Your task to perform on an android device: check data usage Image 0: 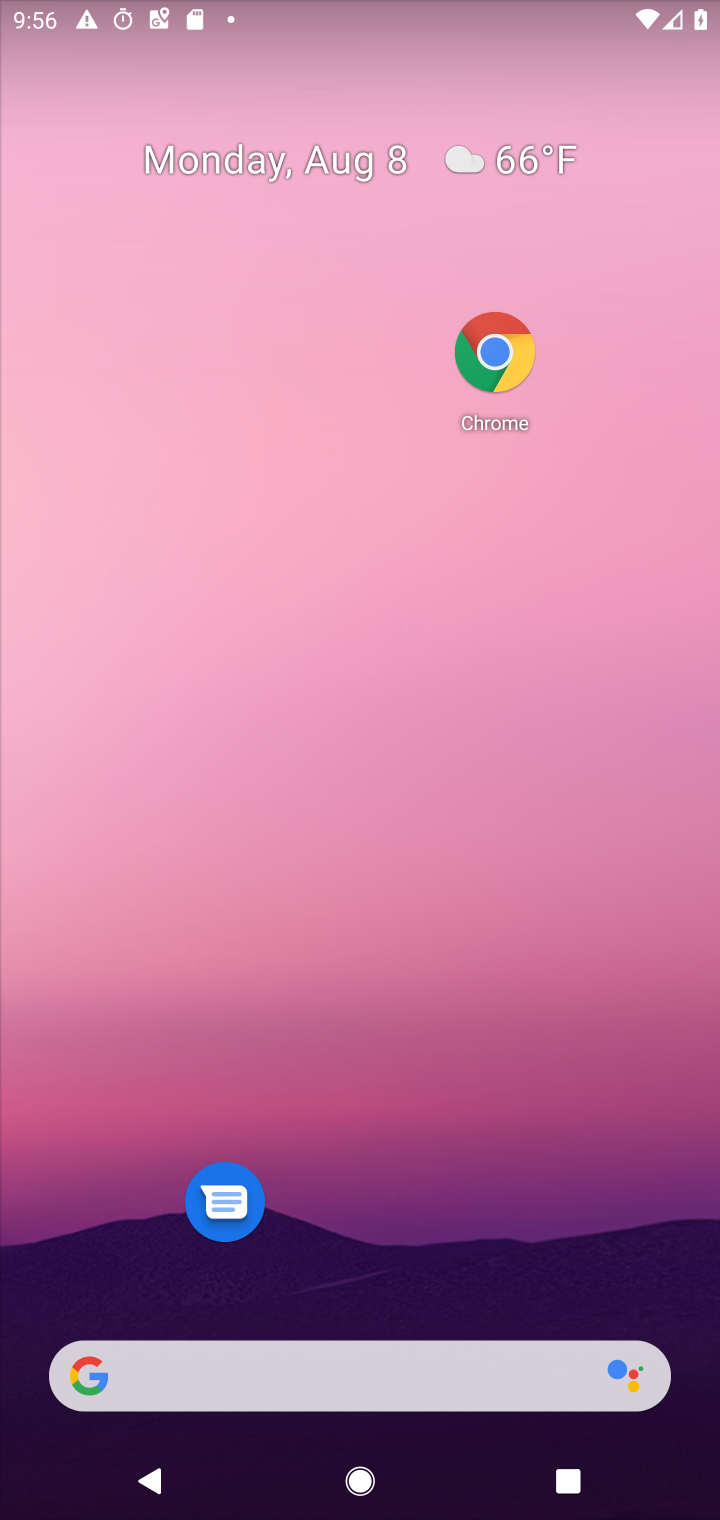
Step 0: drag from (432, 665) to (432, 104)
Your task to perform on an android device: check data usage Image 1: 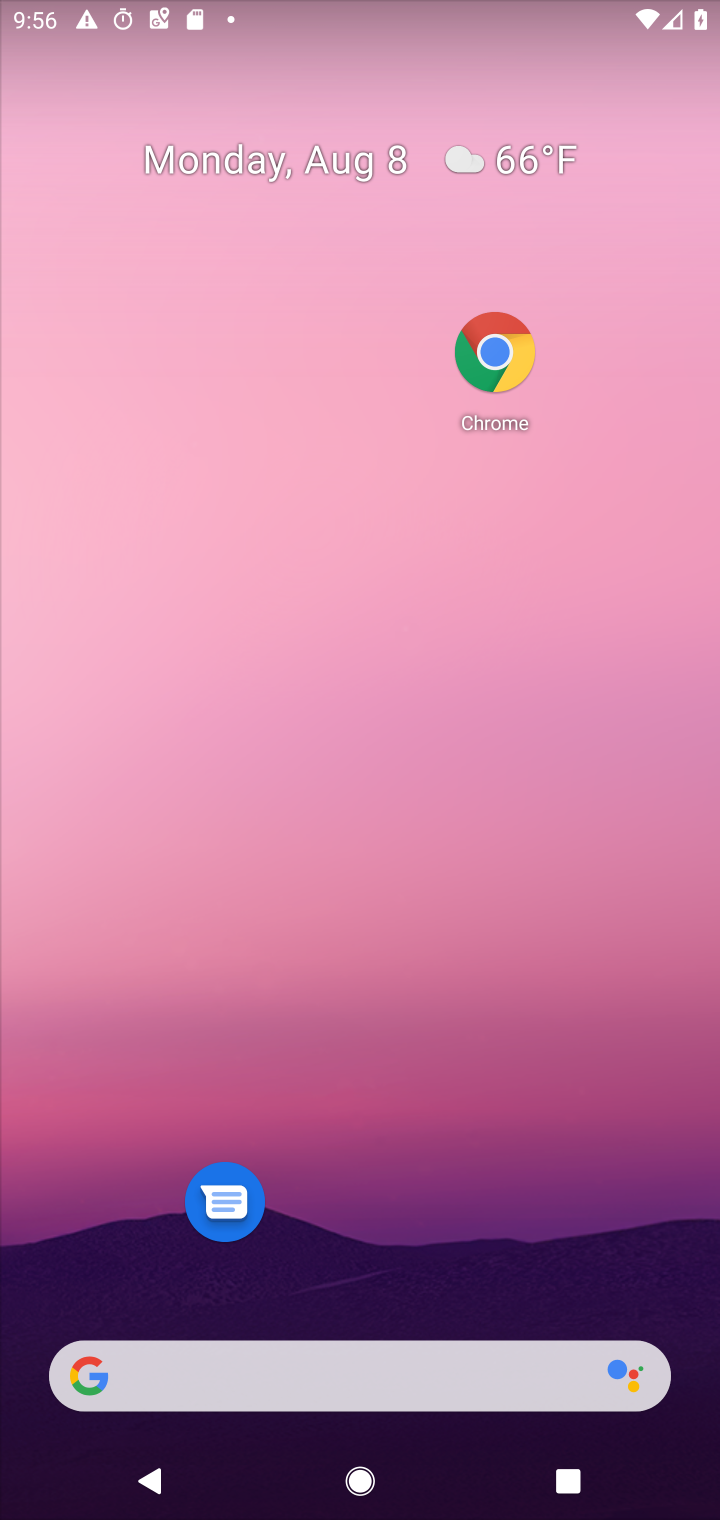
Step 1: drag from (391, 1234) to (514, 145)
Your task to perform on an android device: check data usage Image 2: 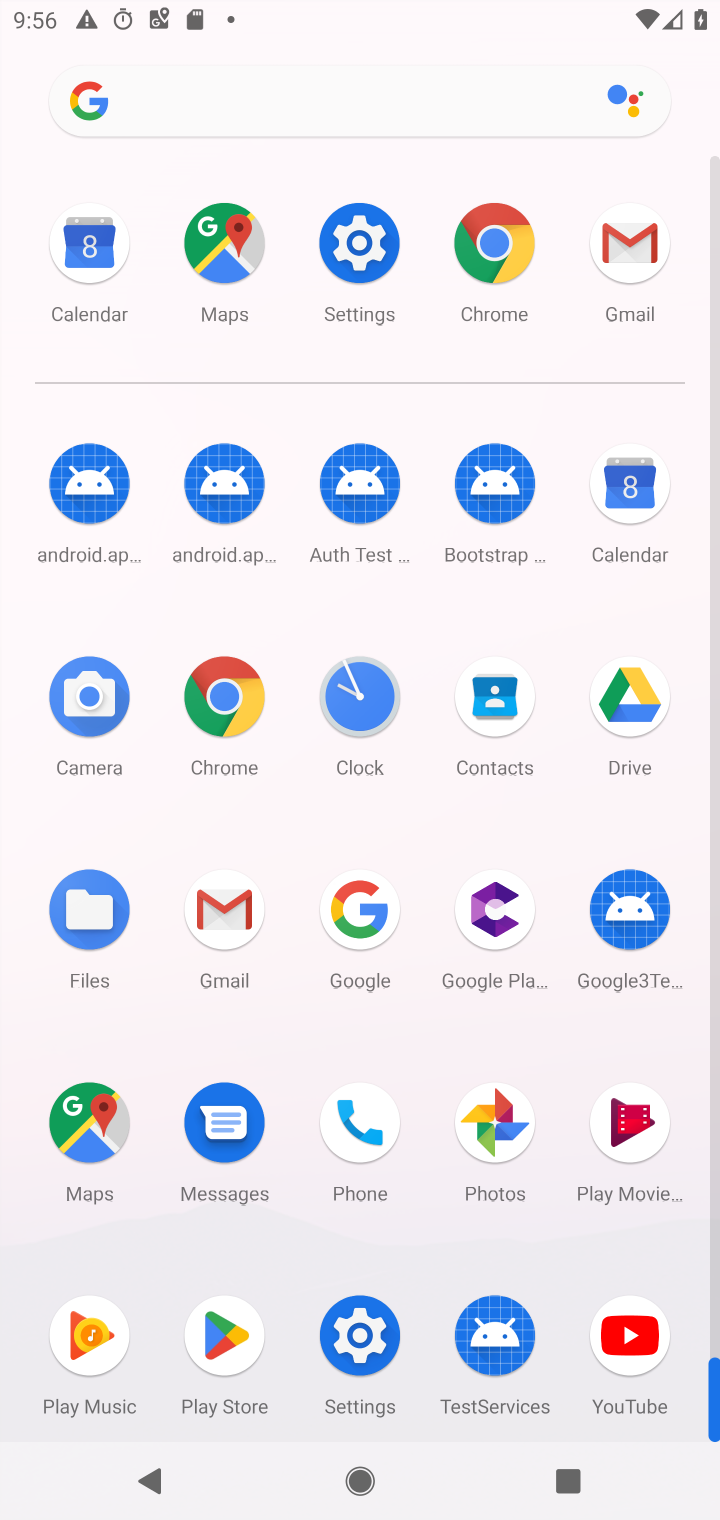
Step 2: click (339, 207)
Your task to perform on an android device: check data usage Image 3: 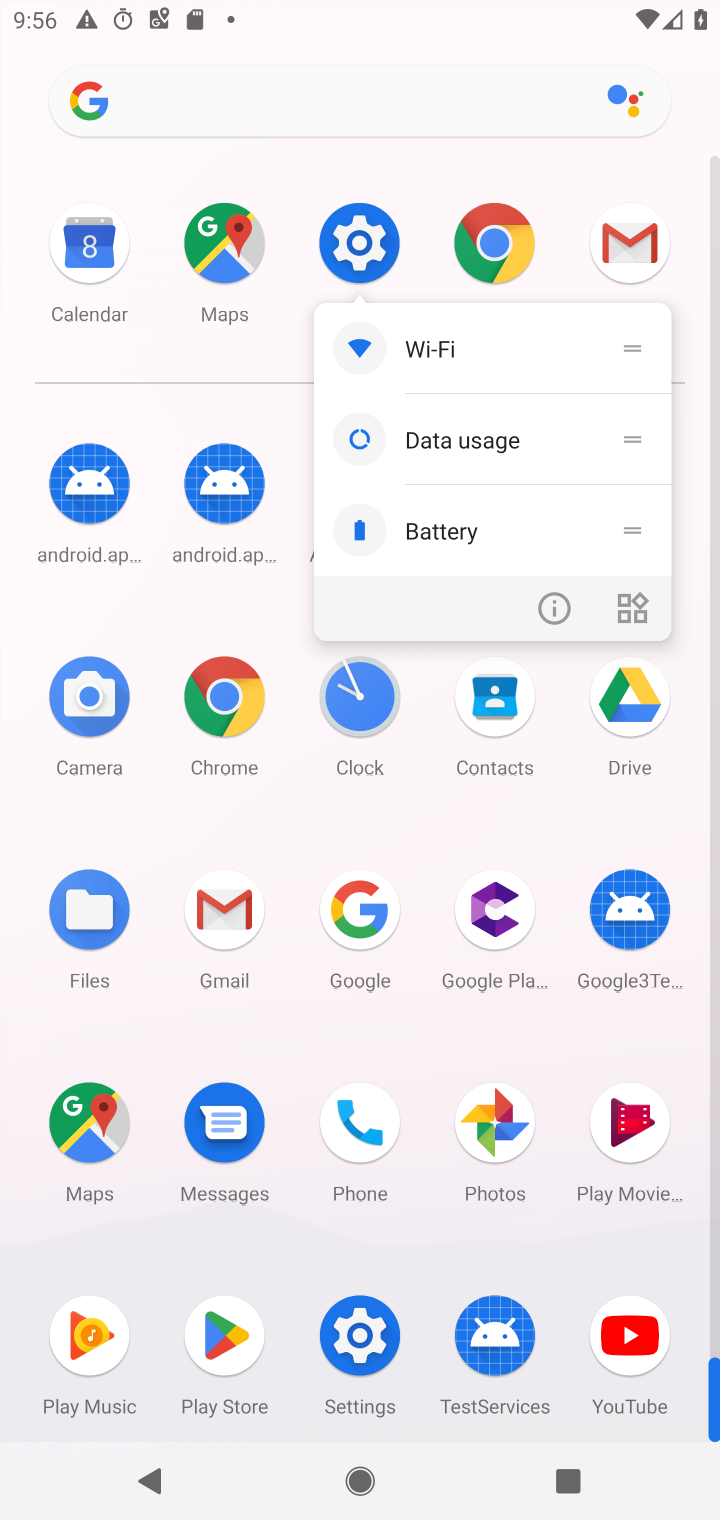
Step 3: click (354, 254)
Your task to perform on an android device: check data usage Image 4: 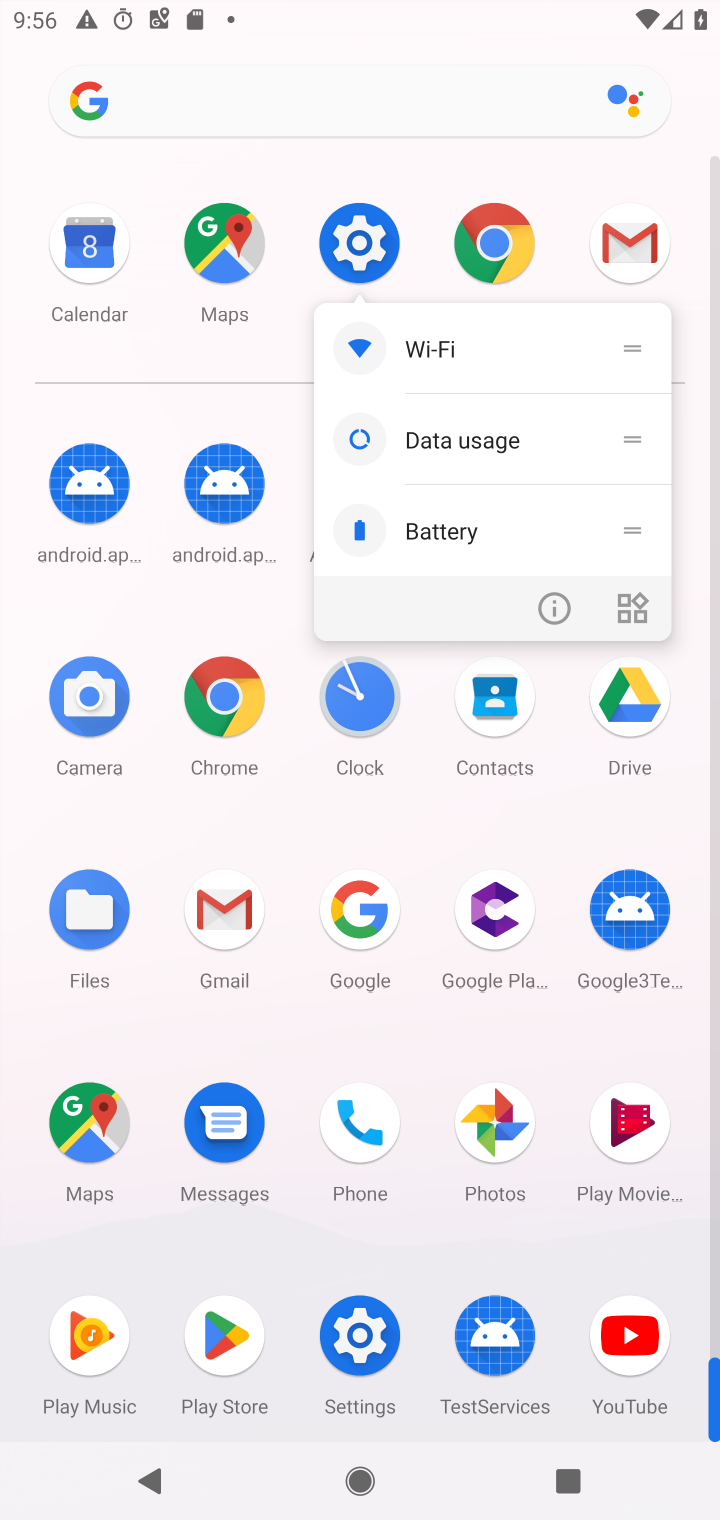
Step 4: click (354, 254)
Your task to perform on an android device: check data usage Image 5: 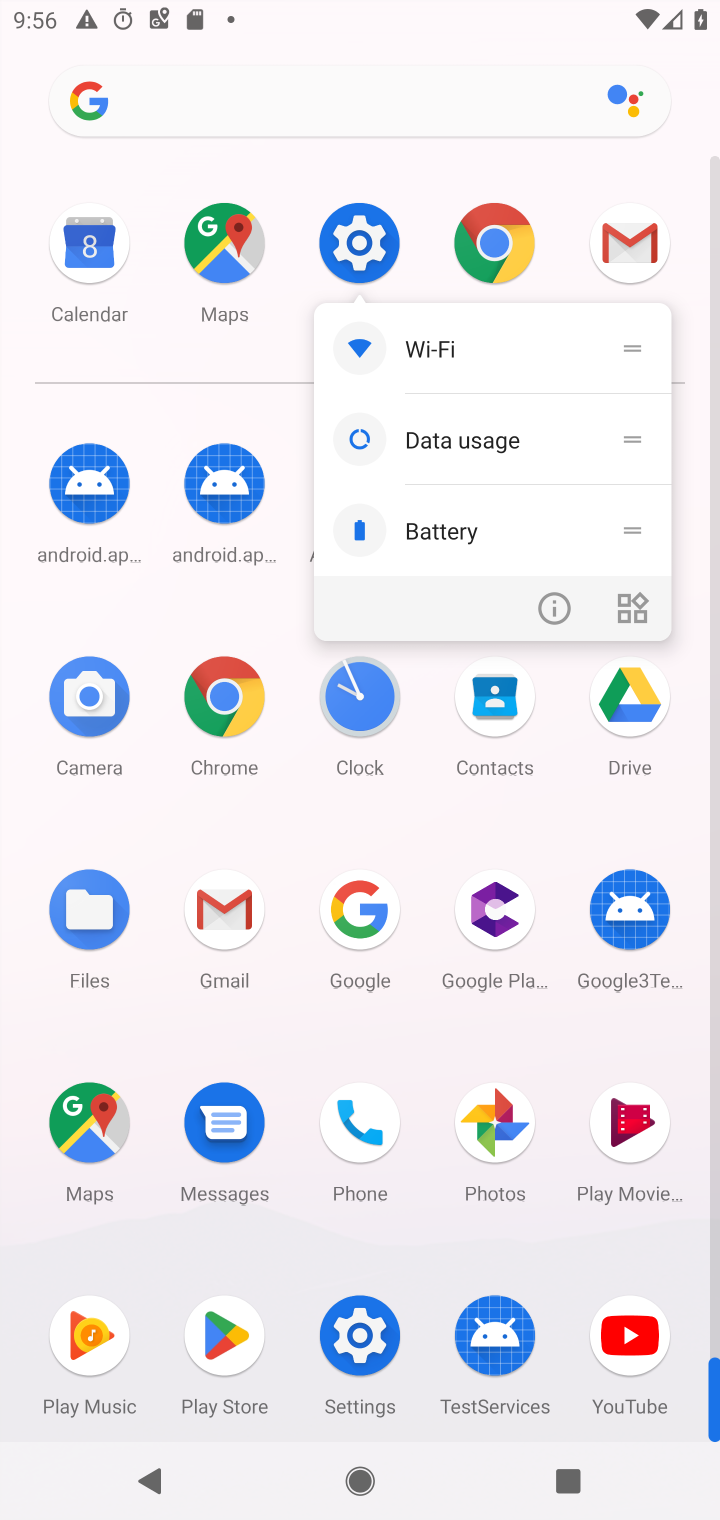
Step 5: click (354, 254)
Your task to perform on an android device: check data usage Image 6: 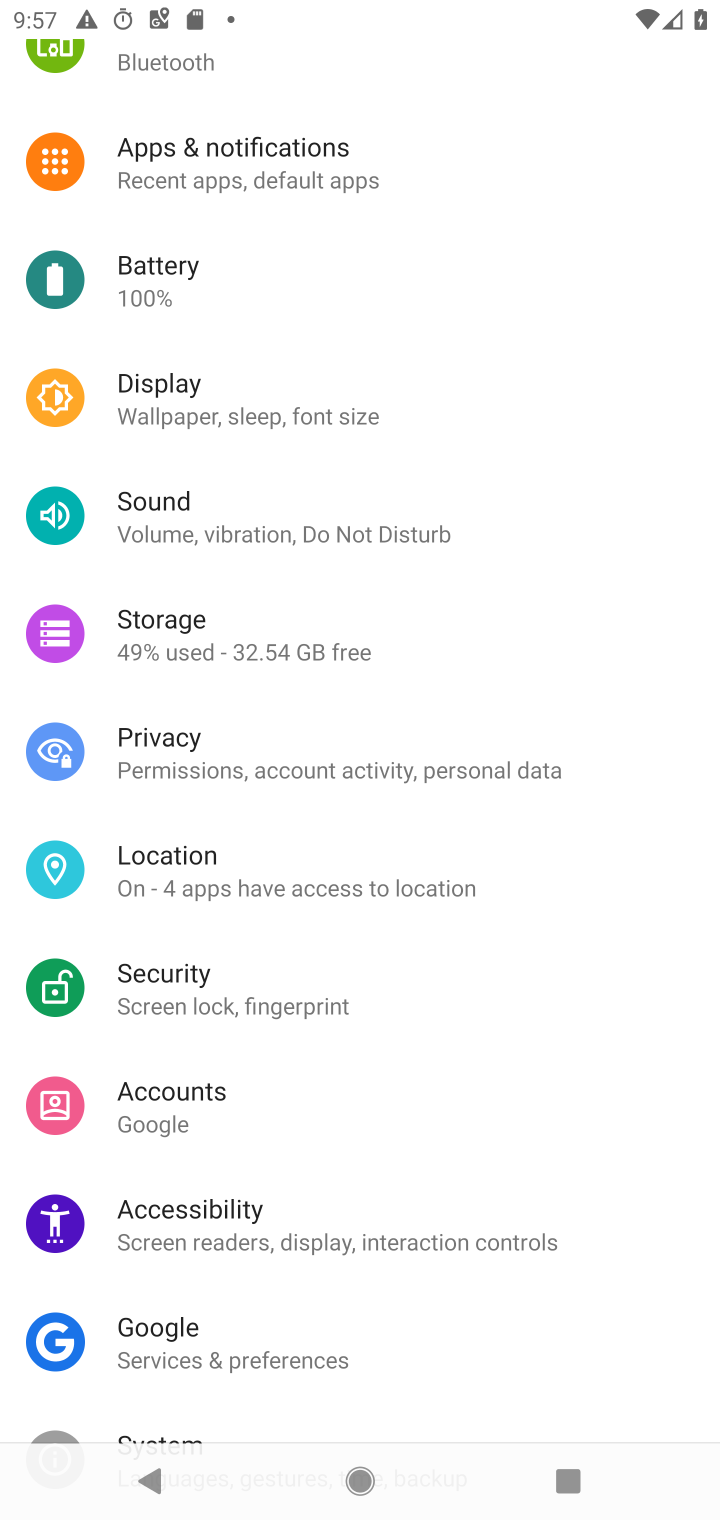
Step 6: drag from (308, 528) to (241, 1193)
Your task to perform on an android device: check data usage Image 7: 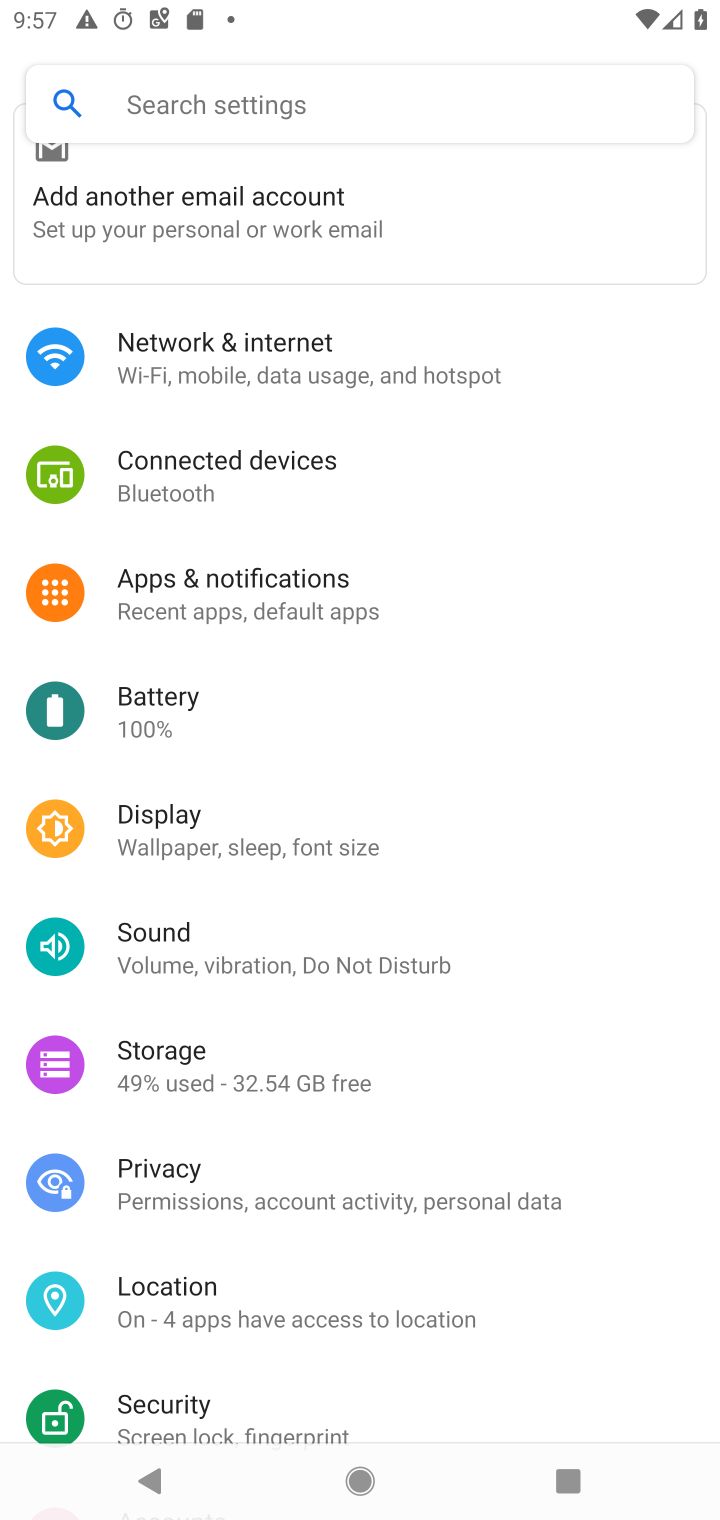
Step 7: click (344, 354)
Your task to perform on an android device: check data usage Image 8: 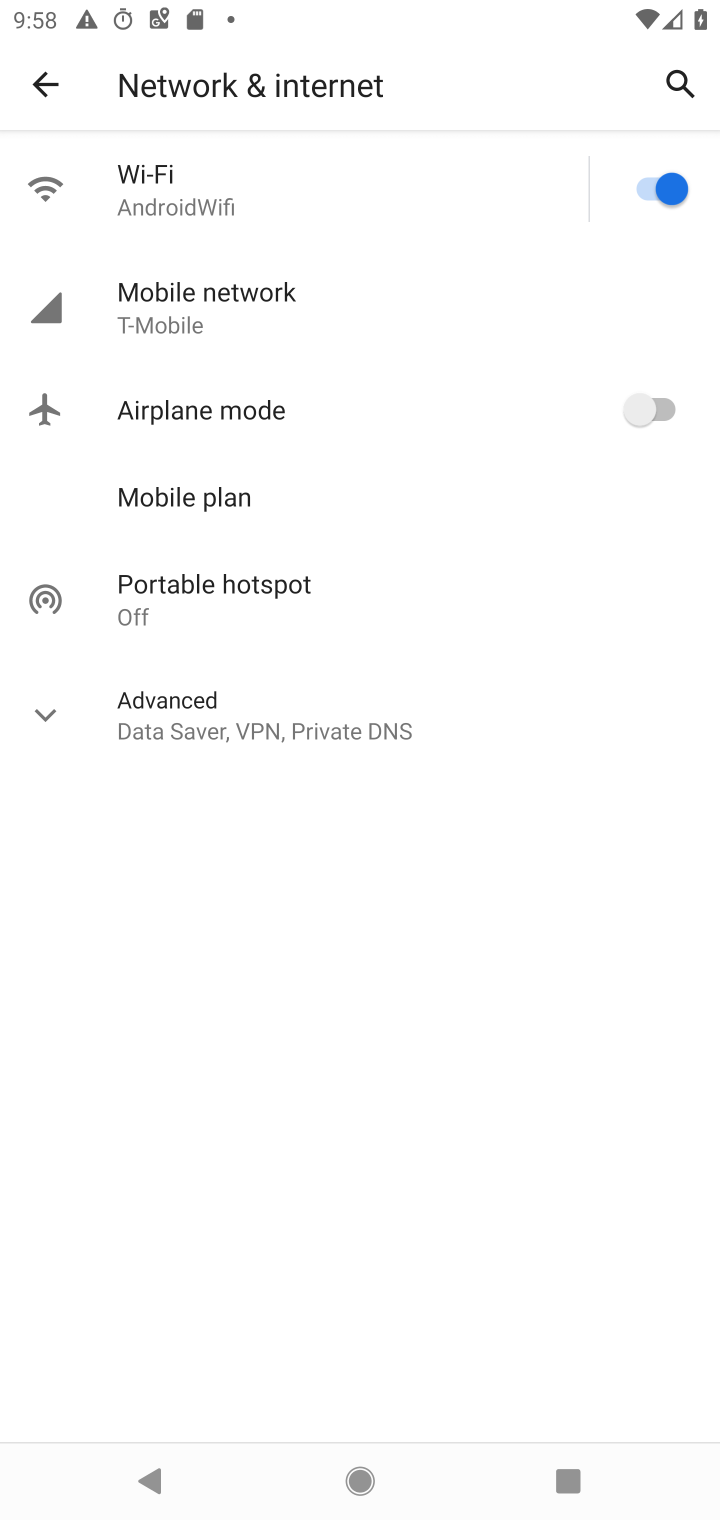
Step 8: click (249, 289)
Your task to perform on an android device: check data usage Image 9: 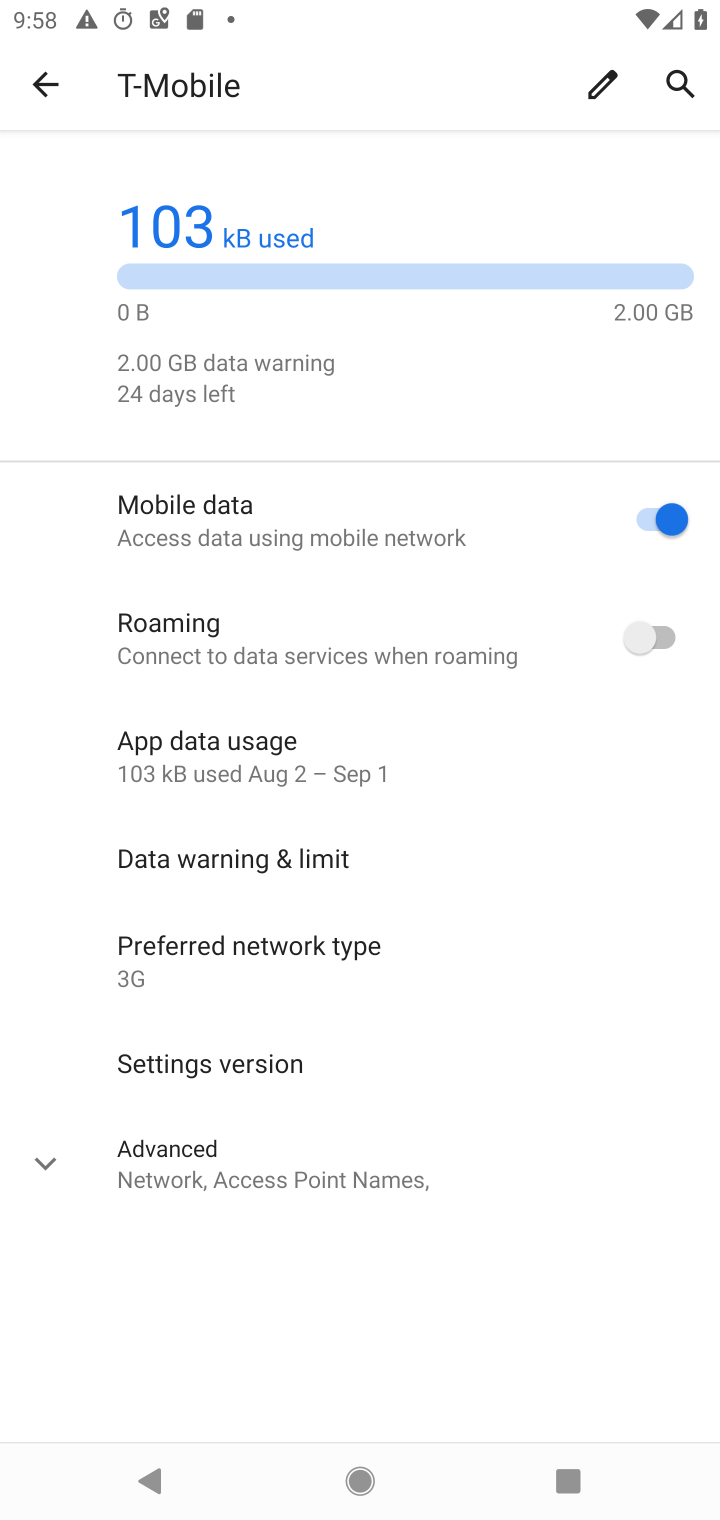
Step 9: click (327, 769)
Your task to perform on an android device: check data usage Image 10: 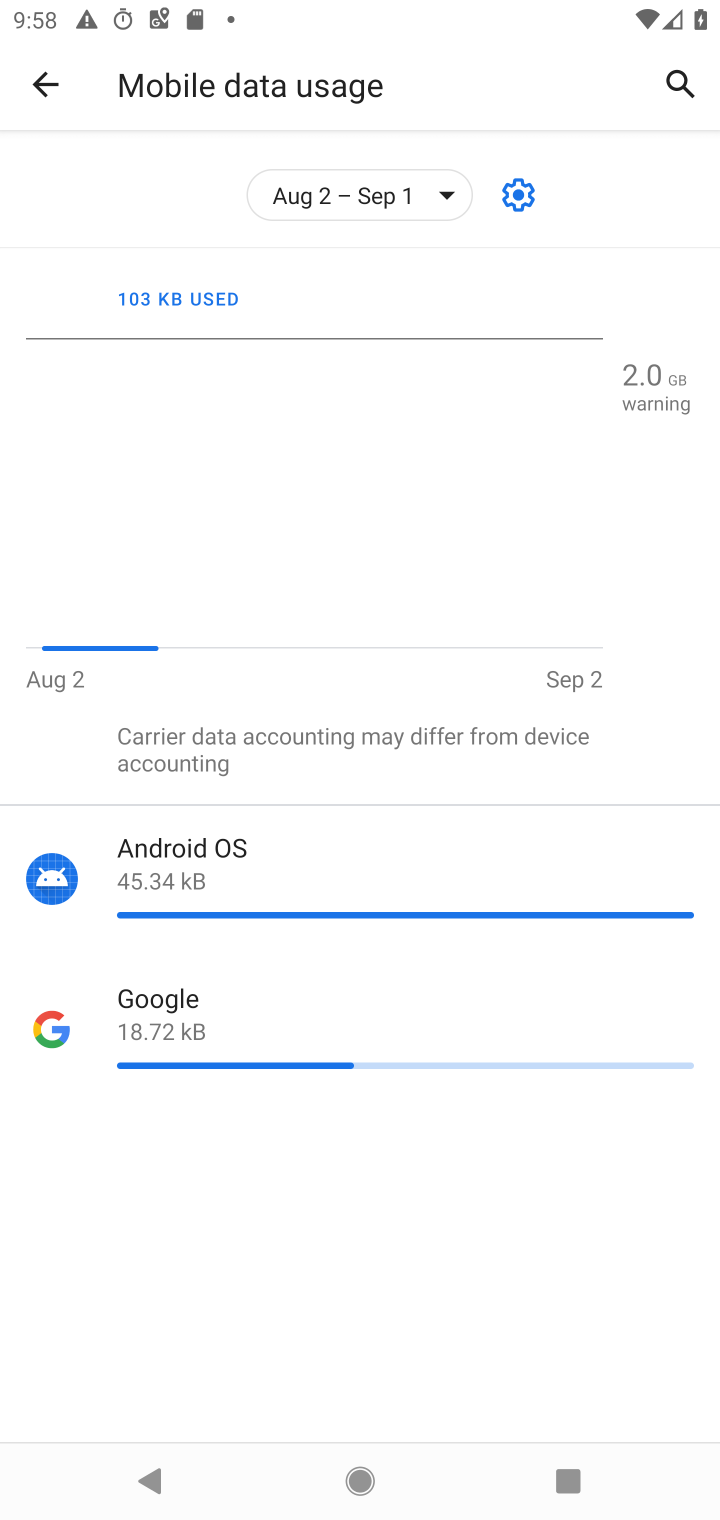
Step 10: task complete